Your task to perform on an android device: open a bookmark in the chrome app Image 0: 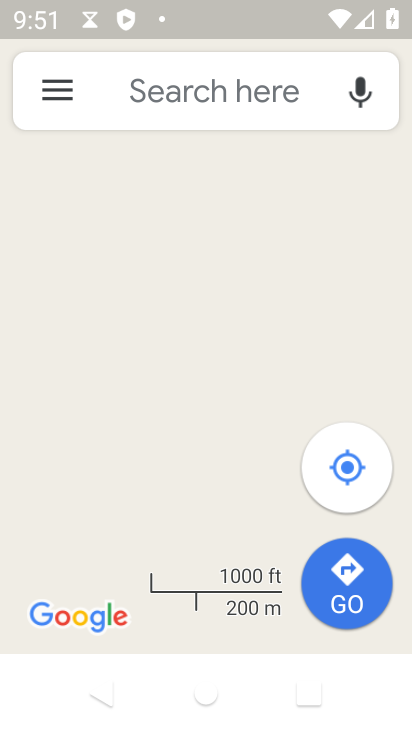
Step 0: press home button
Your task to perform on an android device: open a bookmark in the chrome app Image 1: 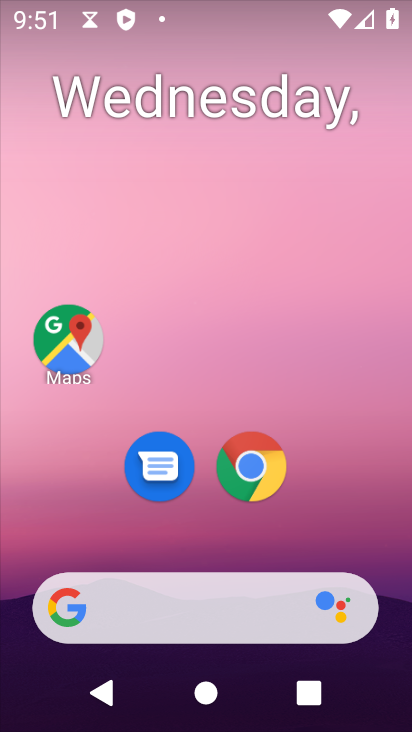
Step 1: click (253, 465)
Your task to perform on an android device: open a bookmark in the chrome app Image 2: 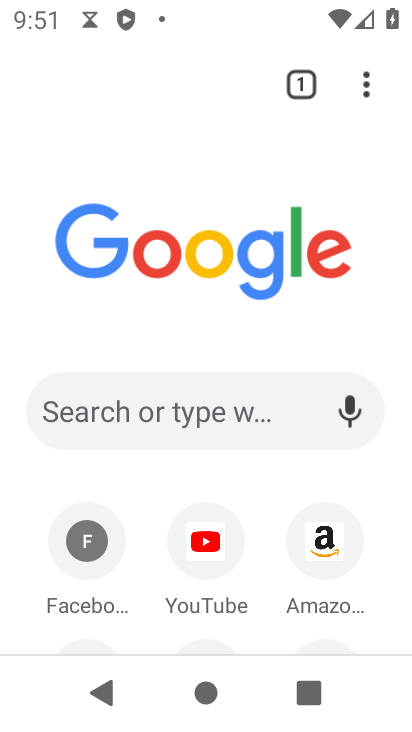
Step 2: click (366, 89)
Your task to perform on an android device: open a bookmark in the chrome app Image 3: 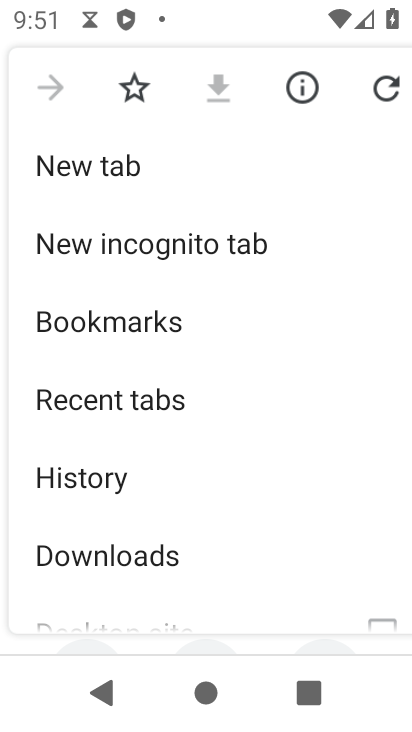
Step 3: click (143, 328)
Your task to perform on an android device: open a bookmark in the chrome app Image 4: 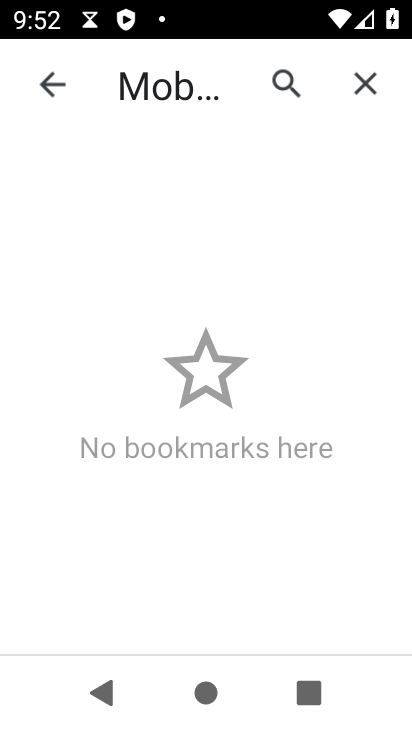
Step 4: task complete